Your task to perform on an android device: change alarm snooze length Image 0: 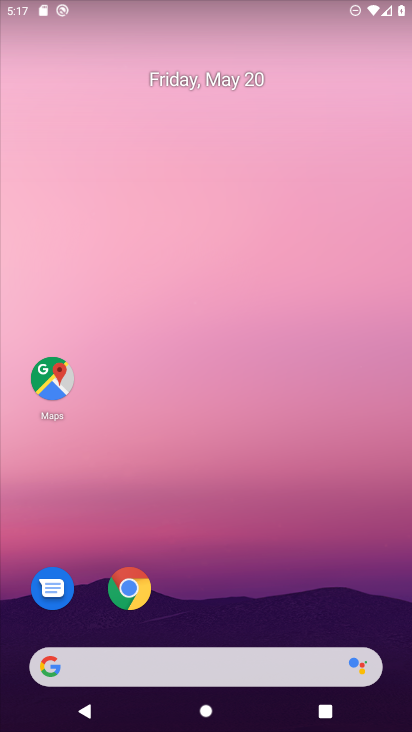
Step 0: drag from (210, 599) to (253, 191)
Your task to perform on an android device: change alarm snooze length Image 1: 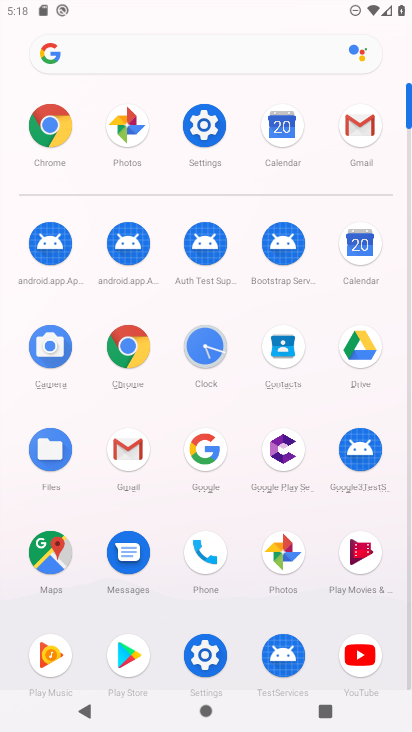
Step 1: click (201, 659)
Your task to perform on an android device: change alarm snooze length Image 2: 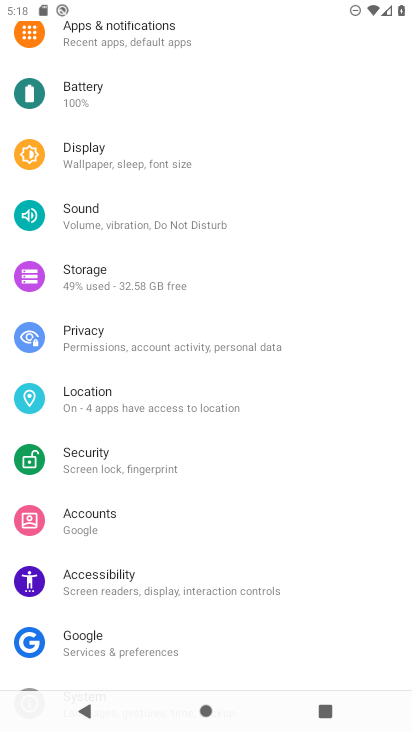
Step 2: press back button
Your task to perform on an android device: change alarm snooze length Image 3: 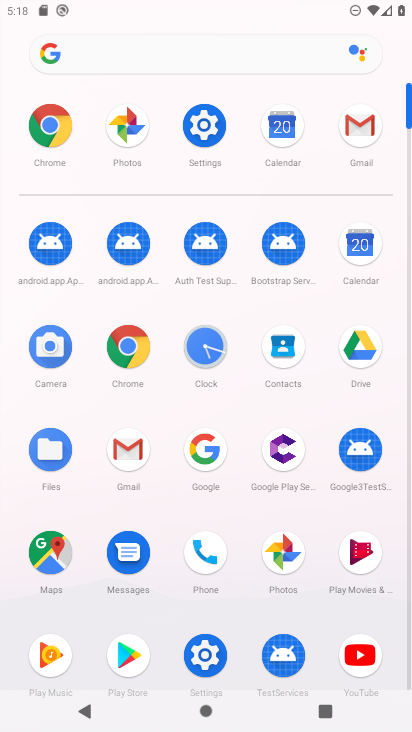
Step 3: click (191, 360)
Your task to perform on an android device: change alarm snooze length Image 4: 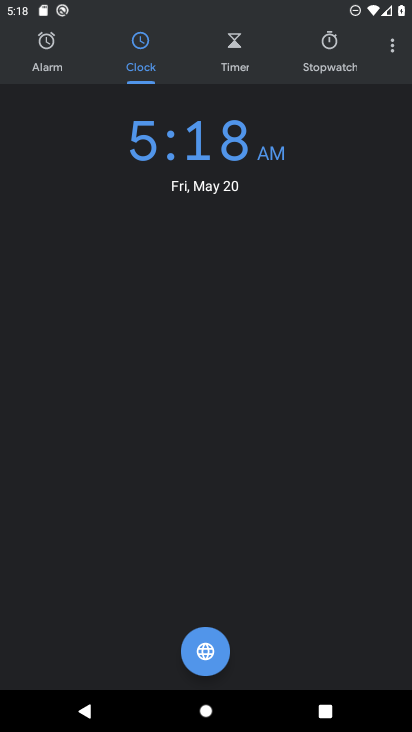
Step 4: click (394, 48)
Your task to perform on an android device: change alarm snooze length Image 5: 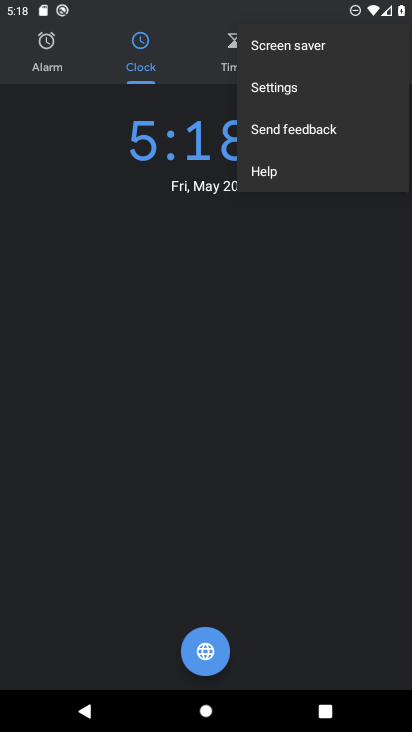
Step 5: click (308, 84)
Your task to perform on an android device: change alarm snooze length Image 6: 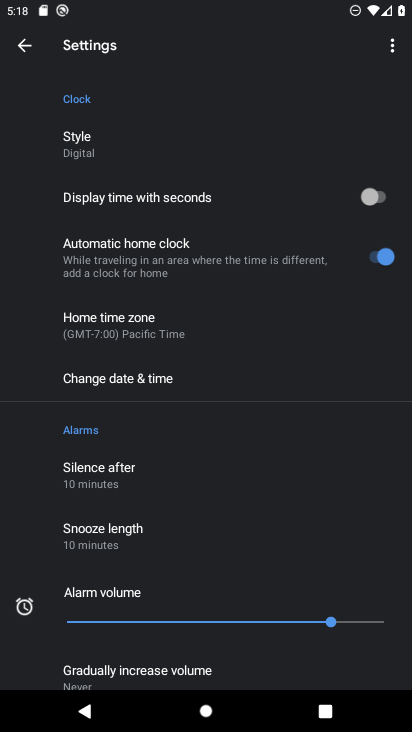
Step 6: click (108, 535)
Your task to perform on an android device: change alarm snooze length Image 7: 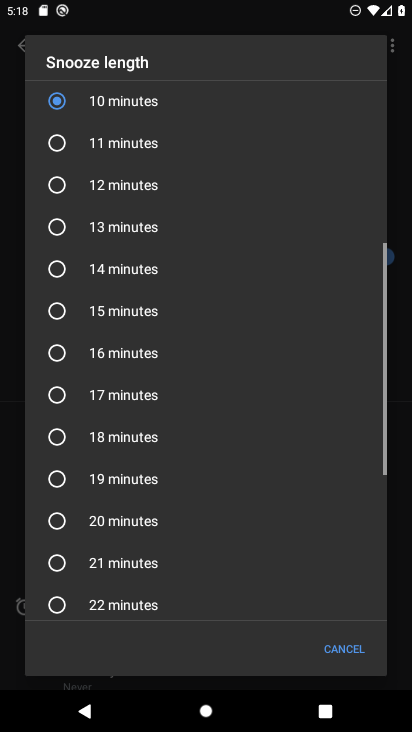
Step 7: click (108, 535)
Your task to perform on an android device: change alarm snooze length Image 8: 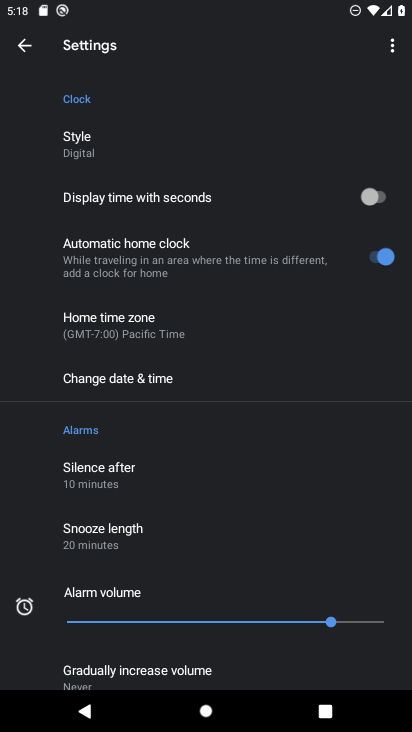
Step 8: task complete